Your task to perform on an android device: change the clock style Image 0: 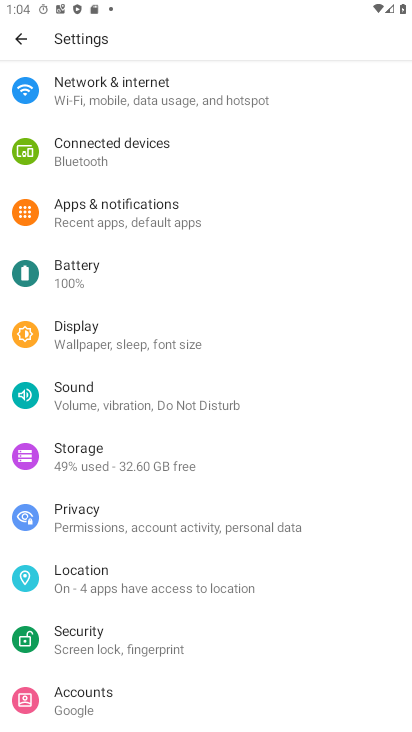
Step 0: press home button
Your task to perform on an android device: change the clock style Image 1: 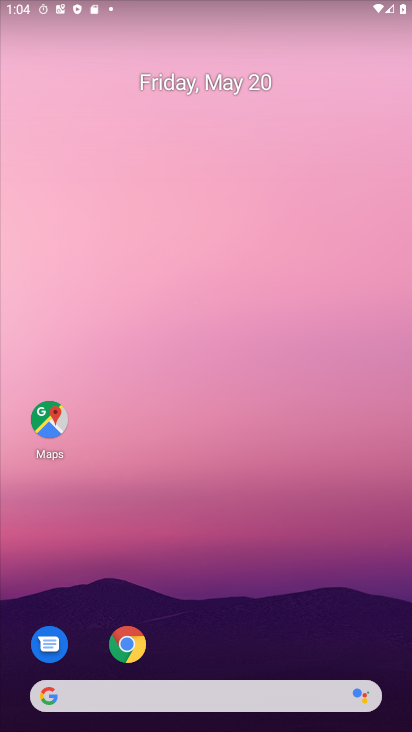
Step 1: drag from (237, 538) to (232, 19)
Your task to perform on an android device: change the clock style Image 2: 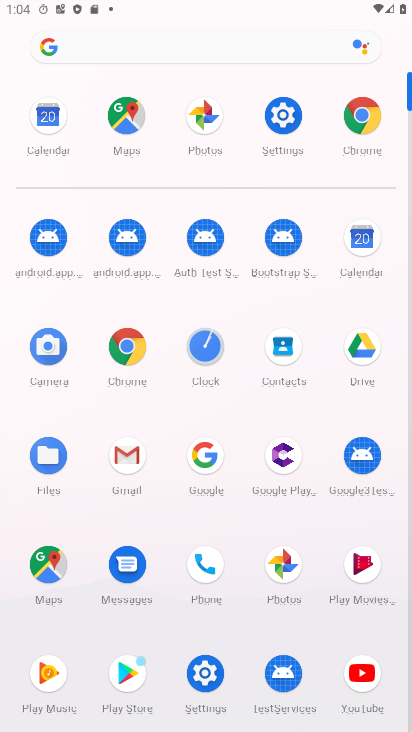
Step 2: click (204, 347)
Your task to perform on an android device: change the clock style Image 3: 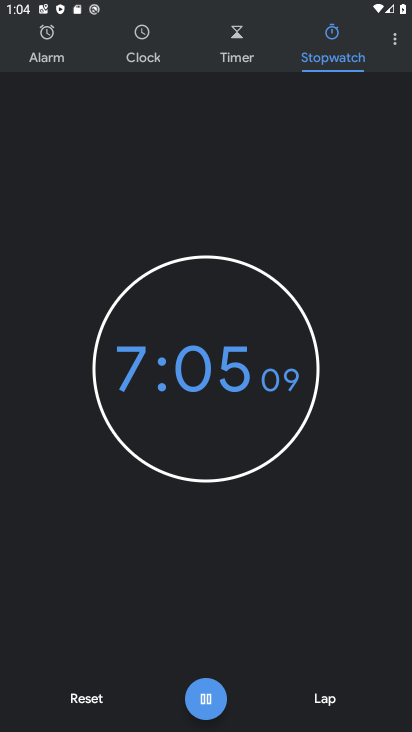
Step 3: click (399, 43)
Your task to perform on an android device: change the clock style Image 4: 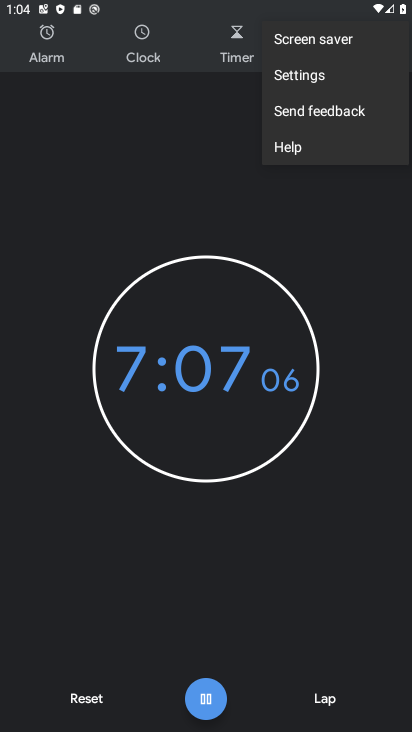
Step 4: click (283, 79)
Your task to perform on an android device: change the clock style Image 5: 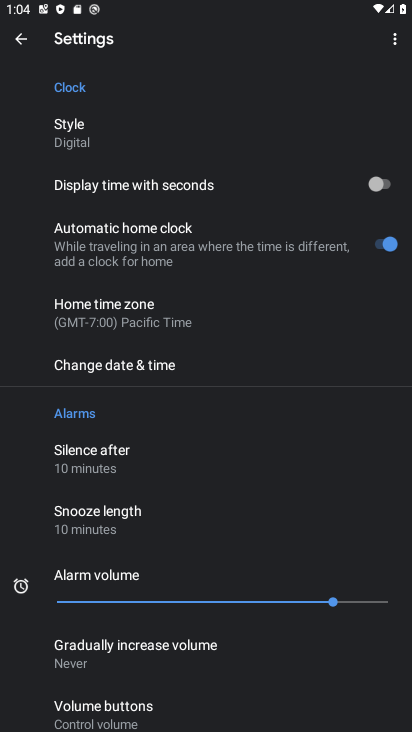
Step 5: task complete